Your task to perform on an android device: Open Google Image 0: 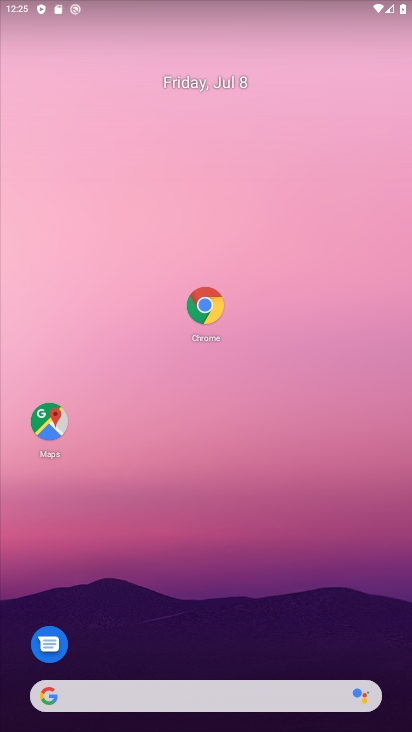
Step 0: drag from (162, 686) to (162, 181)
Your task to perform on an android device: Open Google Image 1: 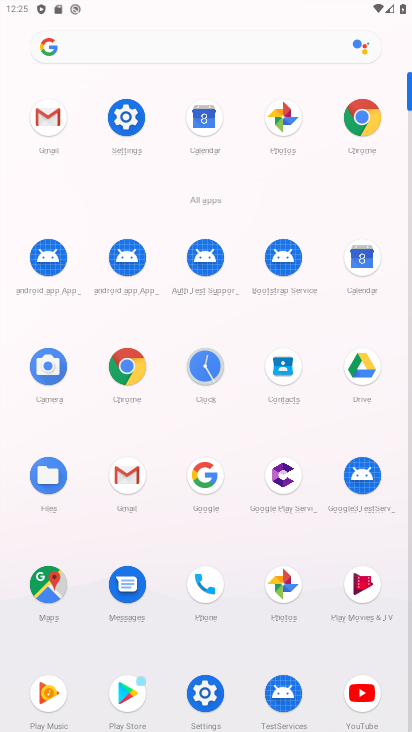
Step 1: click (211, 473)
Your task to perform on an android device: Open Google Image 2: 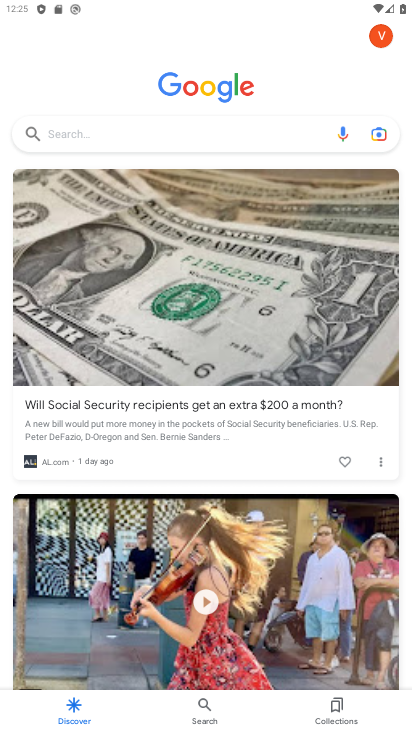
Step 2: task complete